Your task to perform on an android device: Install the Facebook app Image 0: 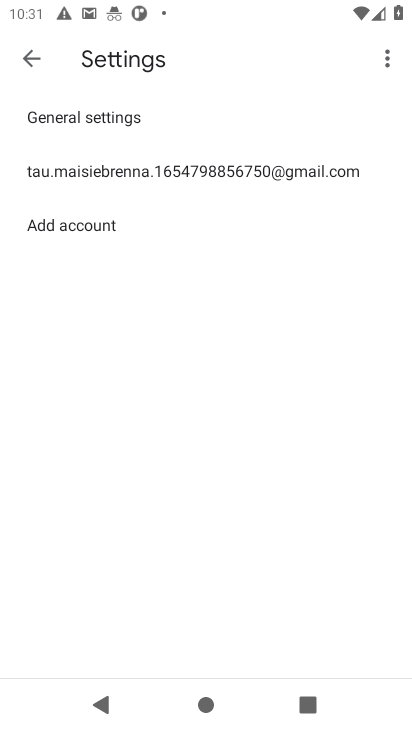
Step 0: press home button
Your task to perform on an android device: Install the Facebook app Image 1: 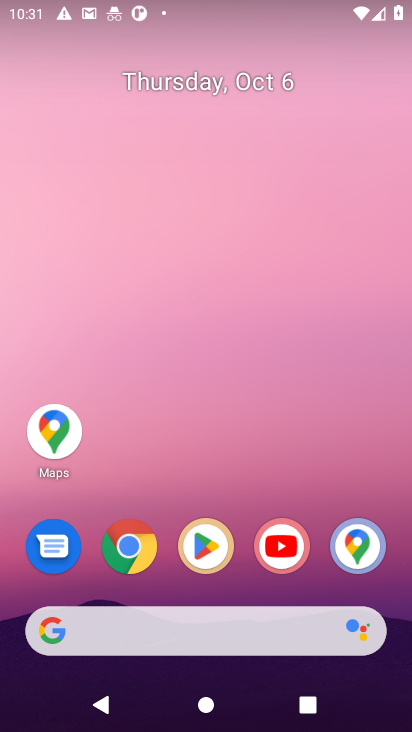
Step 1: click (123, 545)
Your task to perform on an android device: Install the Facebook app Image 2: 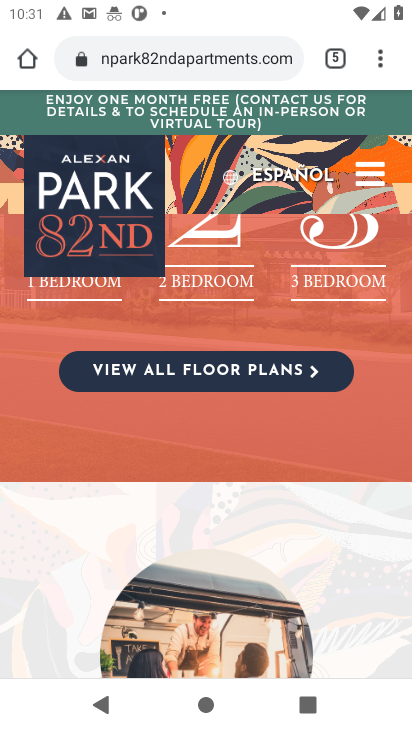
Step 2: click (144, 40)
Your task to perform on an android device: Install the Facebook app Image 3: 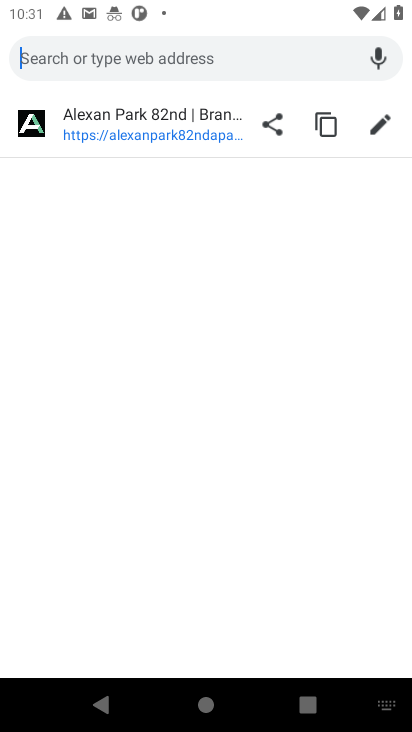
Step 3: type "Install the Facebook app"
Your task to perform on an android device: Install the Facebook app Image 4: 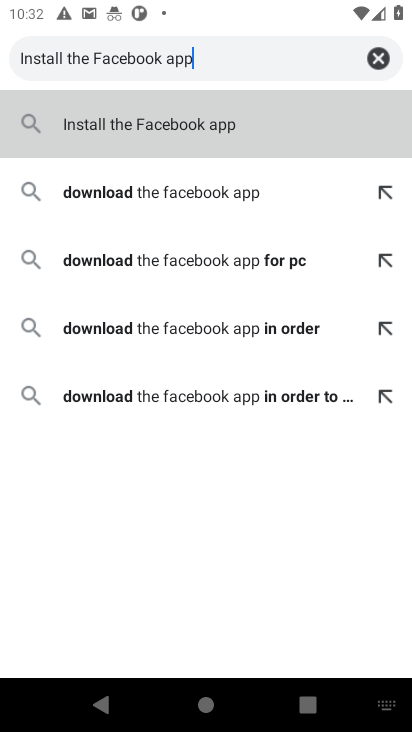
Step 4: click (172, 127)
Your task to perform on an android device: Install the Facebook app Image 5: 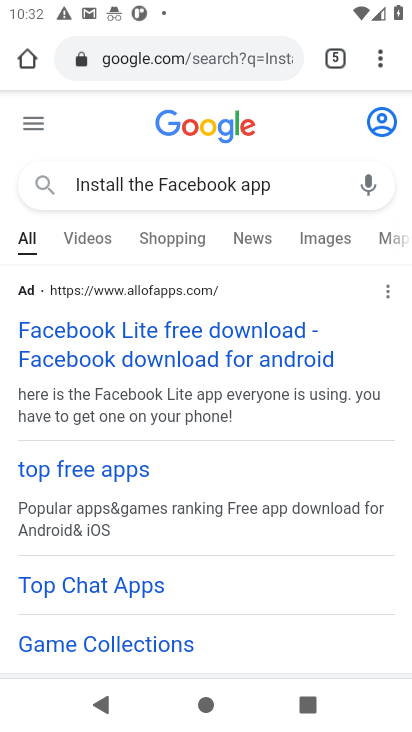
Step 5: click (114, 329)
Your task to perform on an android device: Install the Facebook app Image 6: 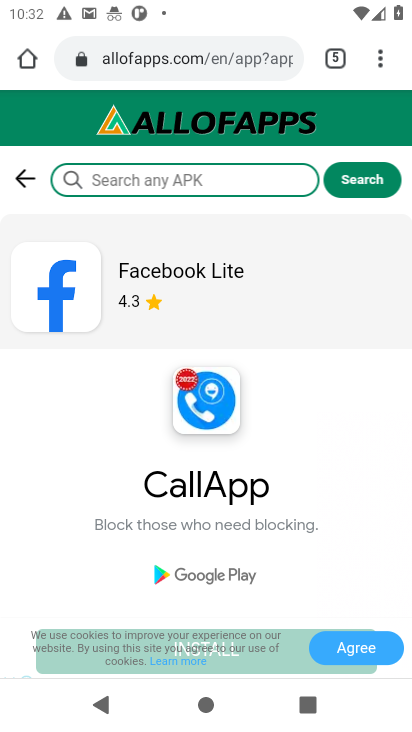
Step 6: press back button
Your task to perform on an android device: Install the Facebook app Image 7: 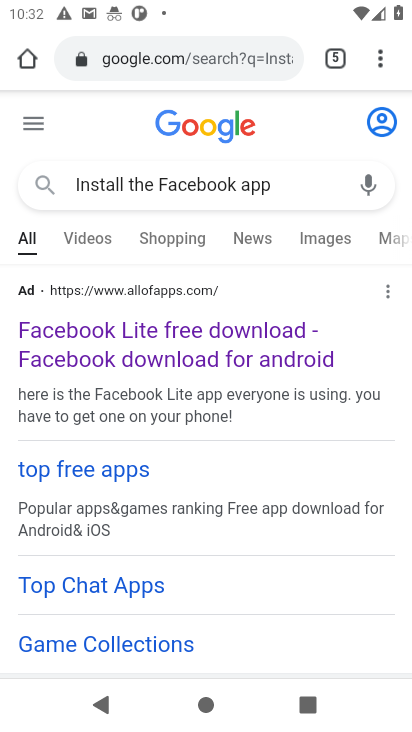
Step 7: drag from (285, 657) to (250, 180)
Your task to perform on an android device: Install the Facebook app Image 8: 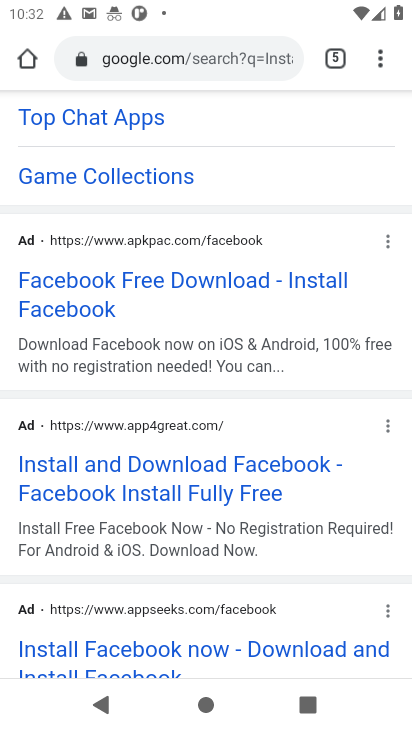
Step 8: drag from (190, 454) to (185, 99)
Your task to perform on an android device: Install the Facebook app Image 9: 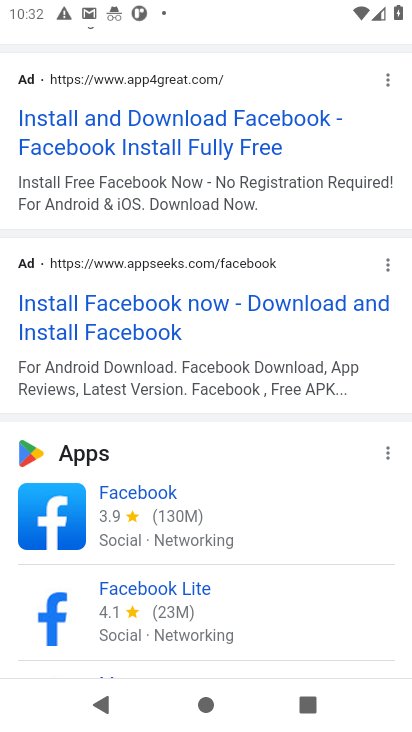
Step 9: click (137, 499)
Your task to perform on an android device: Install the Facebook app Image 10: 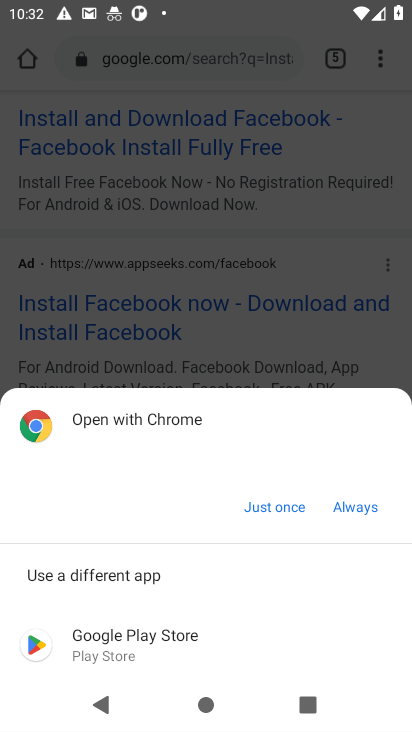
Step 10: click (121, 634)
Your task to perform on an android device: Install the Facebook app Image 11: 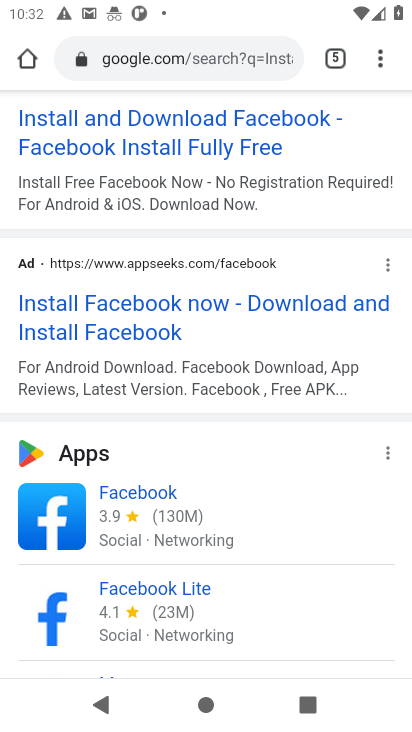
Step 11: click (157, 487)
Your task to perform on an android device: Install the Facebook app Image 12: 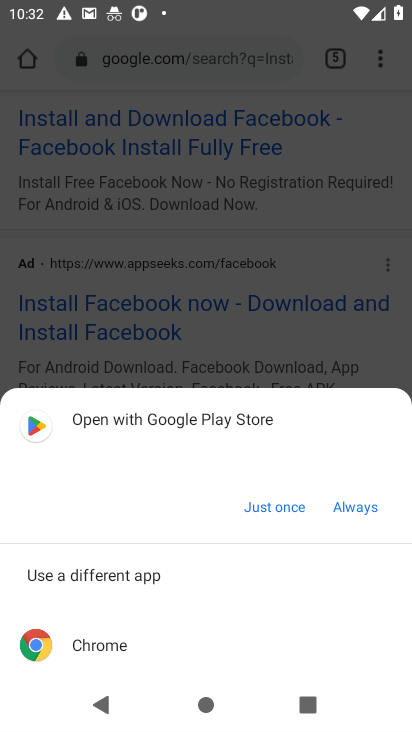
Step 12: click (280, 503)
Your task to perform on an android device: Install the Facebook app Image 13: 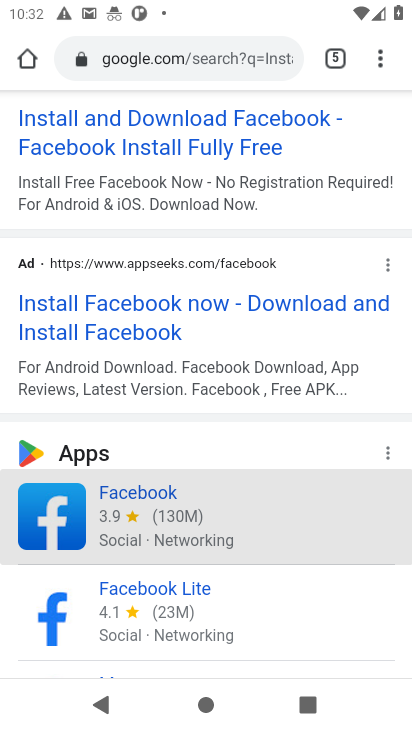
Step 13: task complete